Your task to perform on an android device: allow cookies in the chrome app Image 0: 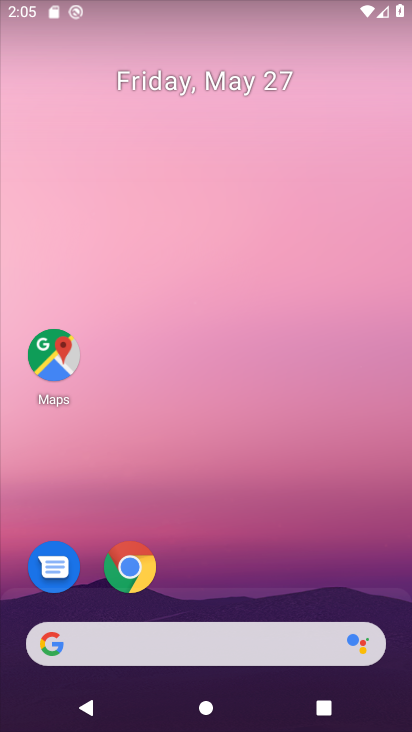
Step 0: drag from (245, 585) to (253, 97)
Your task to perform on an android device: allow cookies in the chrome app Image 1: 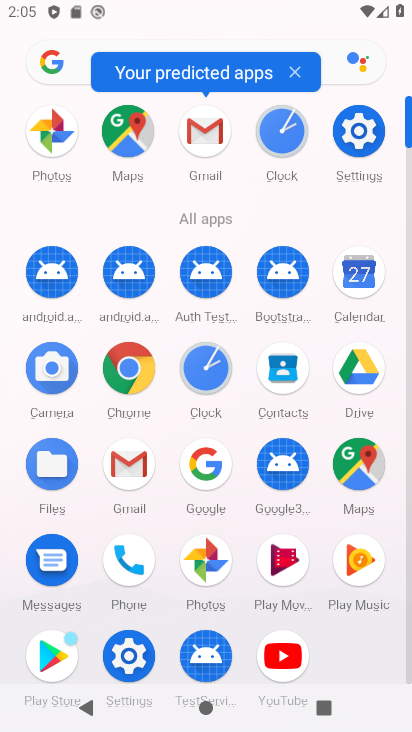
Step 1: click (126, 363)
Your task to perform on an android device: allow cookies in the chrome app Image 2: 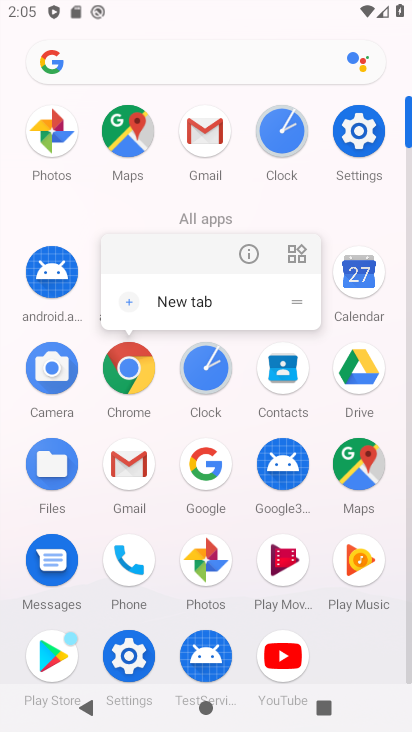
Step 2: click (124, 367)
Your task to perform on an android device: allow cookies in the chrome app Image 3: 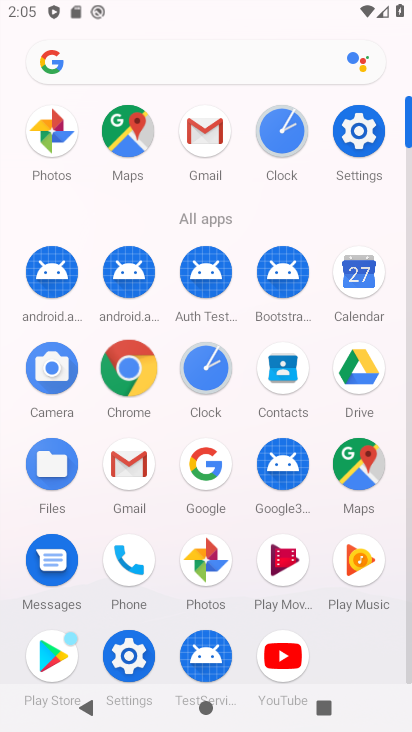
Step 3: click (124, 367)
Your task to perform on an android device: allow cookies in the chrome app Image 4: 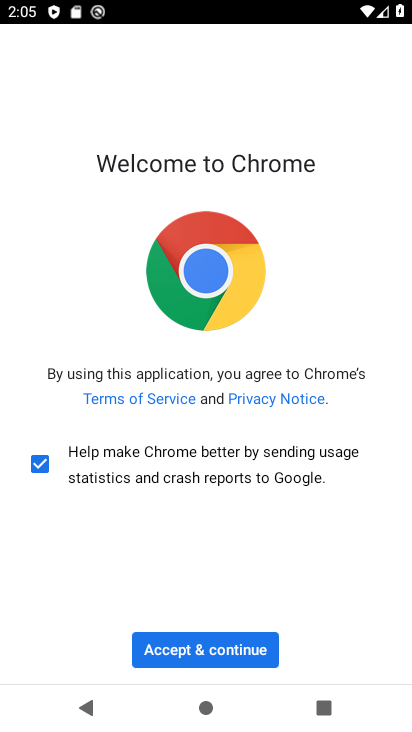
Step 4: click (240, 641)
Your task to perform on an android device: allow cookies in the chrome app Image 5: 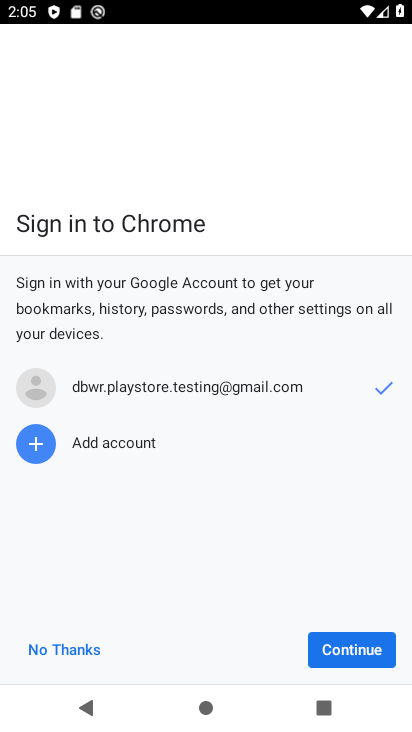
Step 5: click (362, 658)
Your task to perform on an android device: allow cookies in the chrome app Image 6: 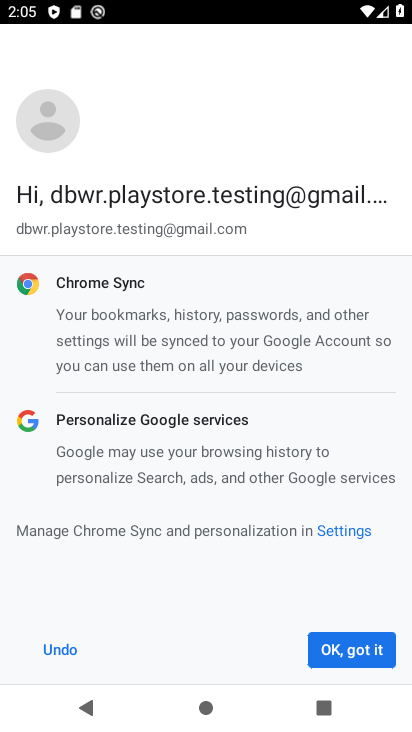
Step 6: click (362, 658)
Your task to perform on an android device: allow cookies in the chrome app Image 7: 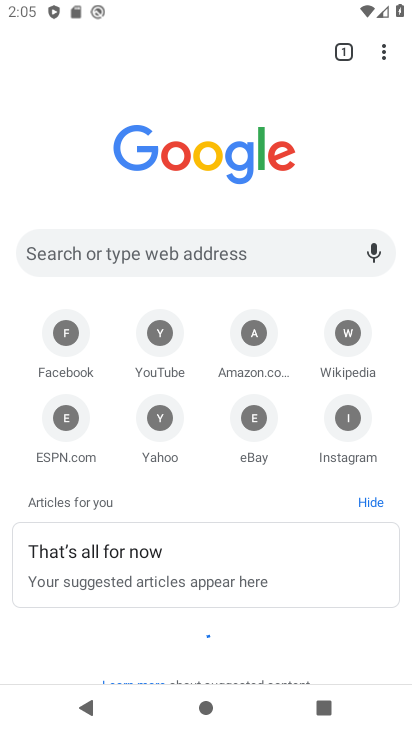
Step 7: drag from (382, 44) to (186, 437)
Your task to perform on an android device: allow cookies in the chrome app Image 8: 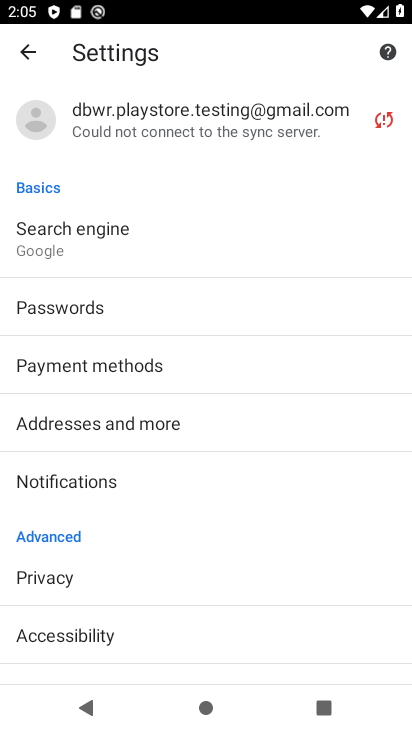
Step 8: drag from (141, 579) to (205, 229)
Your task to perform on an android device: allow cookies in the chrome app Image 9: 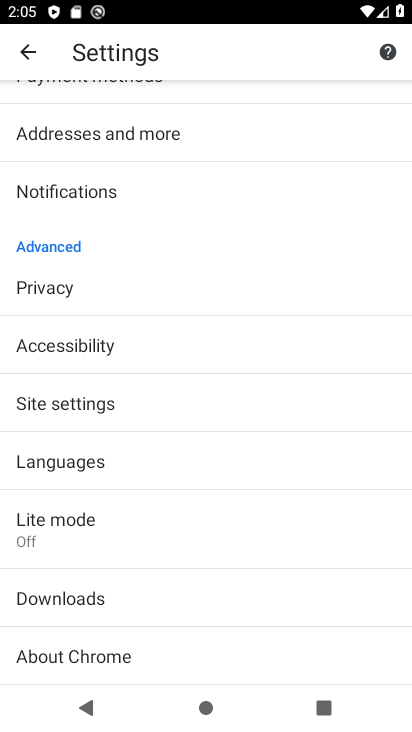
Step 9: click (59, 404)
Your task to perform on an android device: allow cookies in the chrome app Image 10: 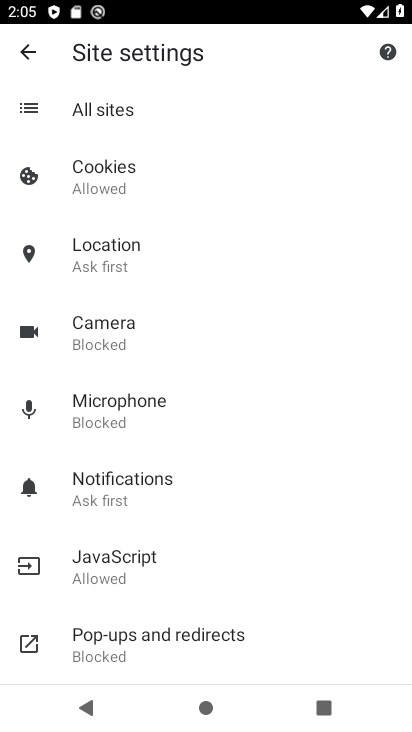
Step 10: click (119, 183)
Your task to perform on an android device: allow cookies in the chrome app Image 11: 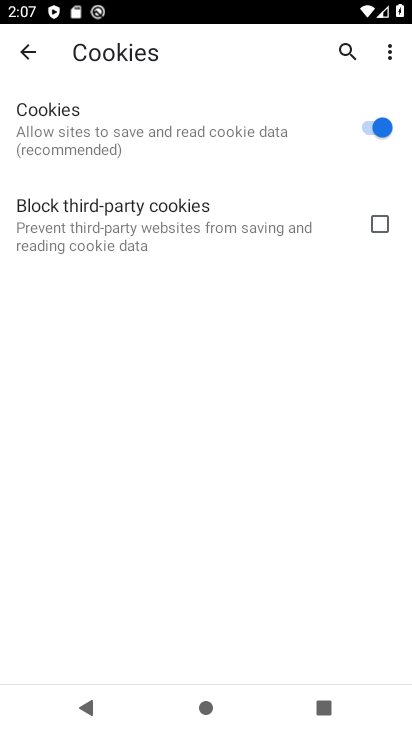
Step 11: task complete